Your task to perform on an android device: What's on my calendar today? Image 0: 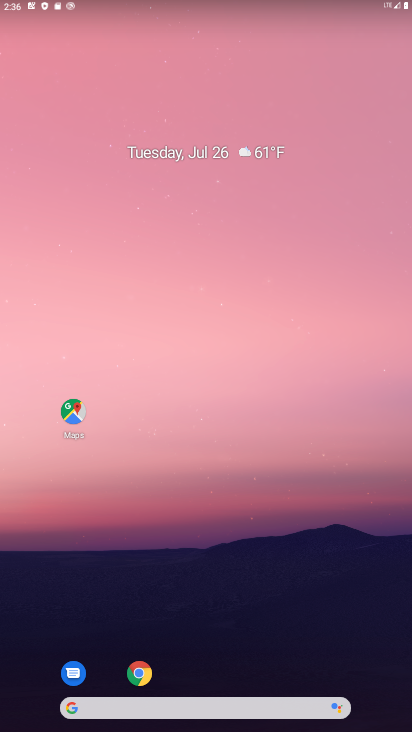
Step 0: drag from (186, 635) to (256, 260)
Your task to perform on an android device: What's on my calendar today? Image 1: 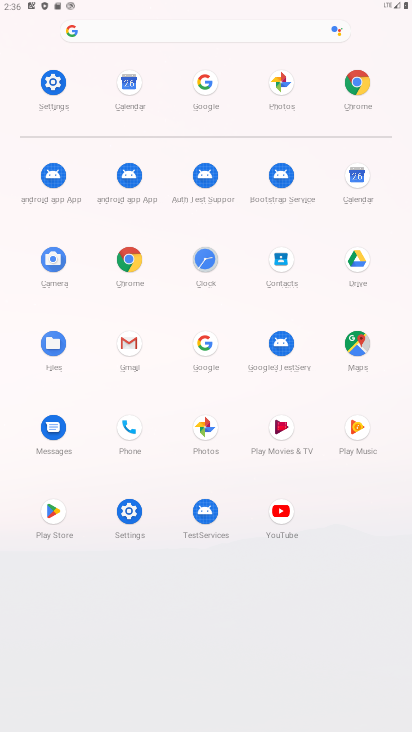
Step 1: drag from (208, 635) to (251, 317)
Your task to perform on an android device: What's on my calendar today? Image 2: 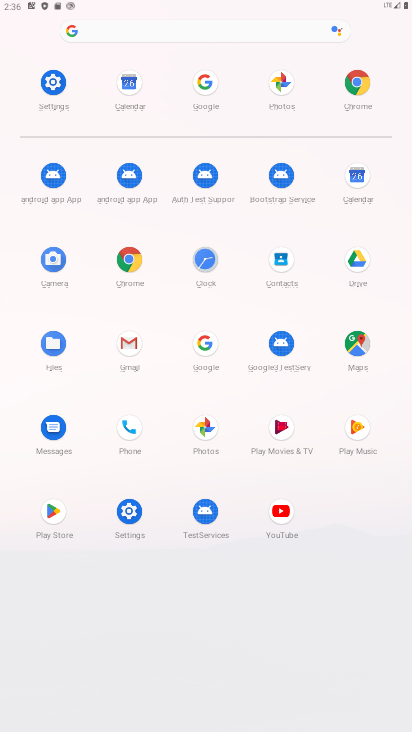
Step 2: click (356, 172)
Your task to perform on an android device: What's on my calendar today? Image 3: 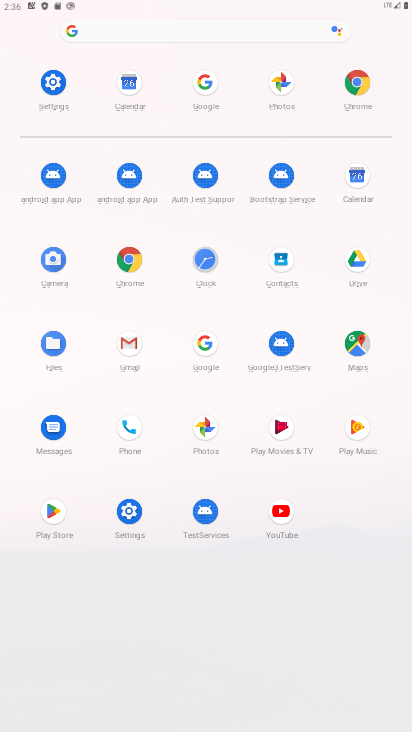
Step 3: click (356, 172)
Your task to perform on an android device: What's on my calendar today? Image 4: 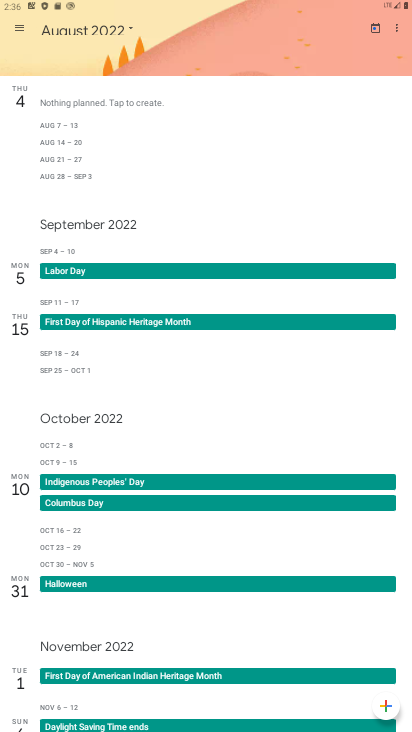
Step 4: drag from (273, 491) to (370, 125)
Your task to perform on an android device: What's on my calendar today? Image 5: 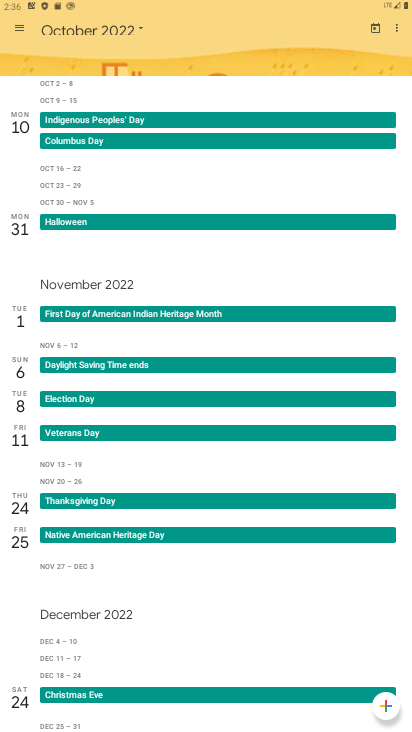
Step 5: drag from (271, 500) to (271, 211)
Your task to perform on an android device: What's on my calendar today? Image 6: 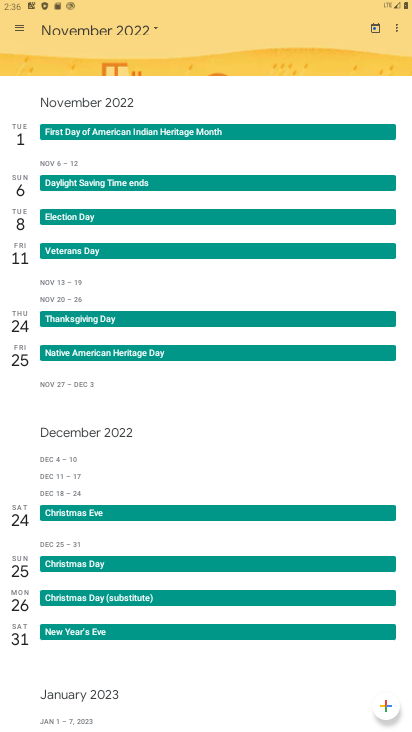
Step 6: drag from (239, 235) to (255, 731)
Your task to perform on an android device: What's on my calendar today? Image 7: 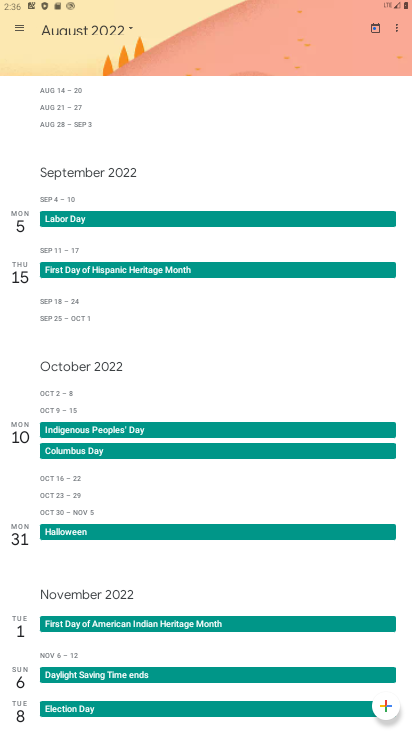
Step 7: click (378, 22)
Your task to perform on an android device: What's on my calendar today? Image 8: 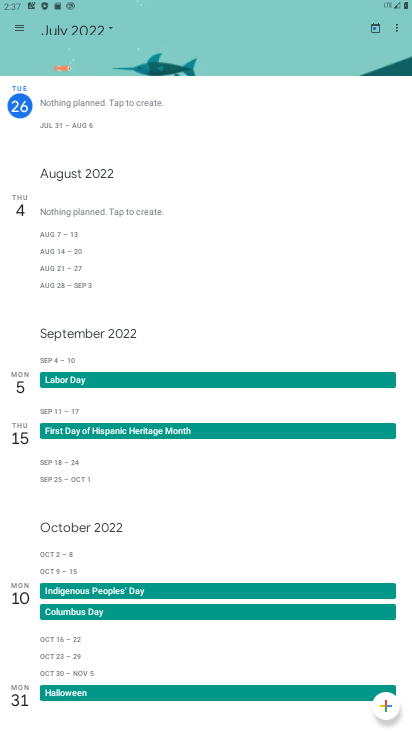
Step 8: click (373, 21)
Your task to perform on an android device: What's on my calendar today? Image 9: 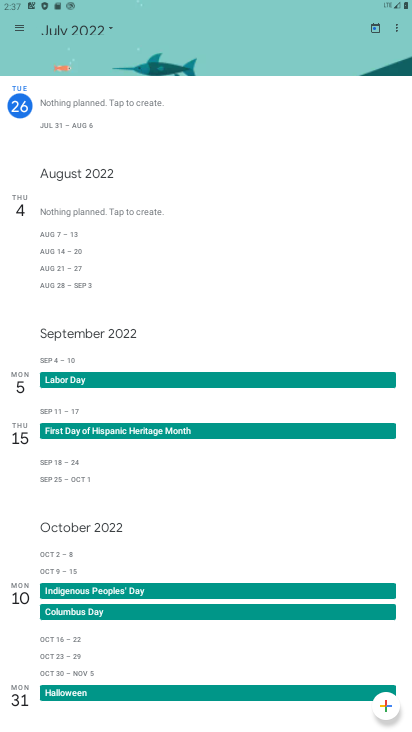
Step 9: task complete